Your task to perform on an android device: Do I have any events this weekend? Image 0: 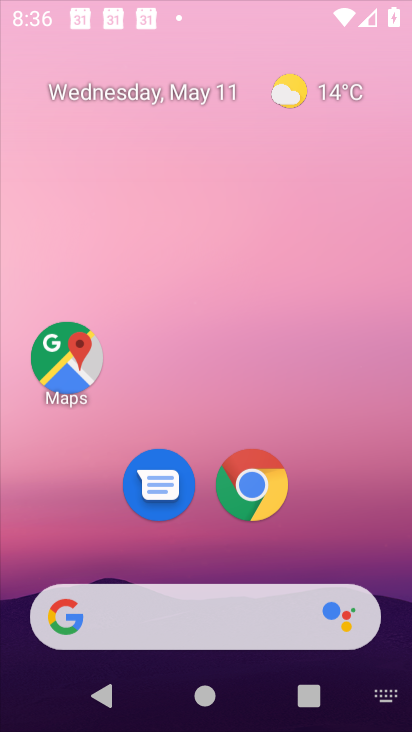
Step 0: click (223, 160)
Your task to perform on an android device: Do I have any events this weekend? Image 1: 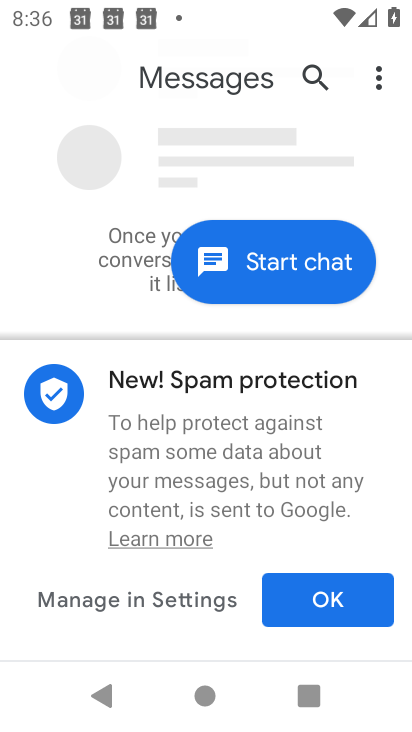
Step 1: press home button
Your task to perform on an android device: Do I have any events this weekend? Image 2: 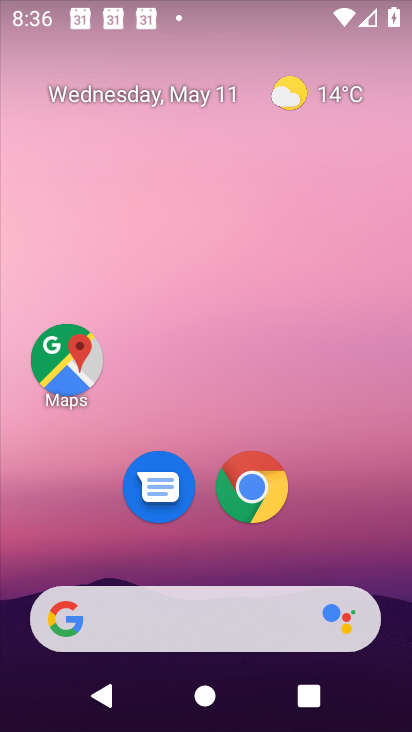
Step 2: drag from (237, 715) to (242, 132)
Your task to perform on an android device: Do I have any events this weekend? Image 3: 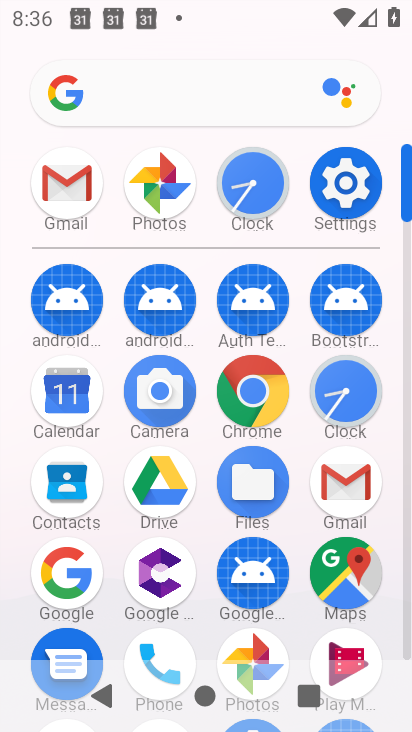
Step 3: click (64, 404)
Your task to perform on an android device: Do I have any events this weekend? Image 4: 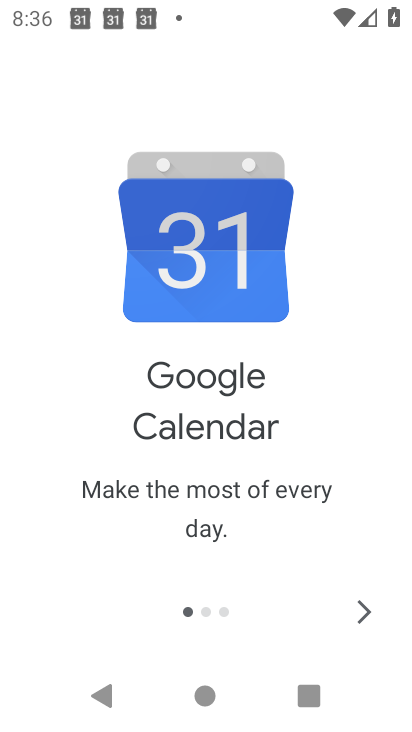
Step 4: click (370, 608)
Your task to perform on an android device: Do I have any events this weekend? Image 5: 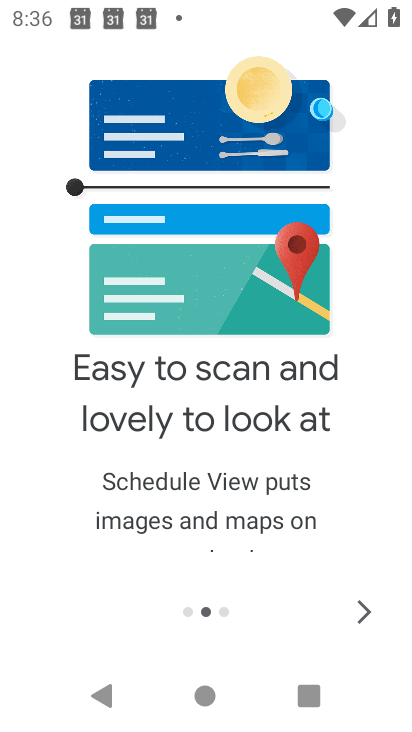
Step 5: click (370, 608)
Your task to perform on an android device: Do I have any events this weekend? Image 6: 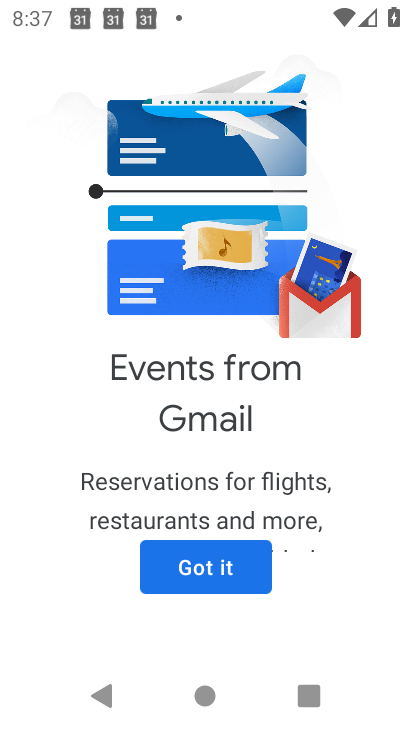
Step 6: click (187, 557)
Your task to perform on an android device: Do I have any events this weekend? Image 7: 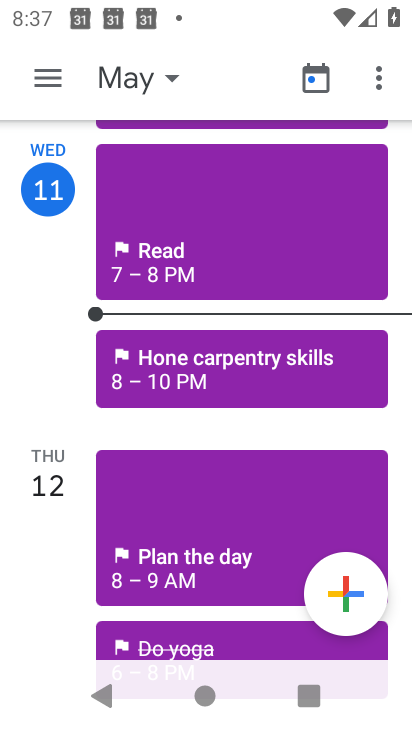
Step 7: click (34, 84)
Your task to perform on an android device: Do I have any events this weekend? Image 8: 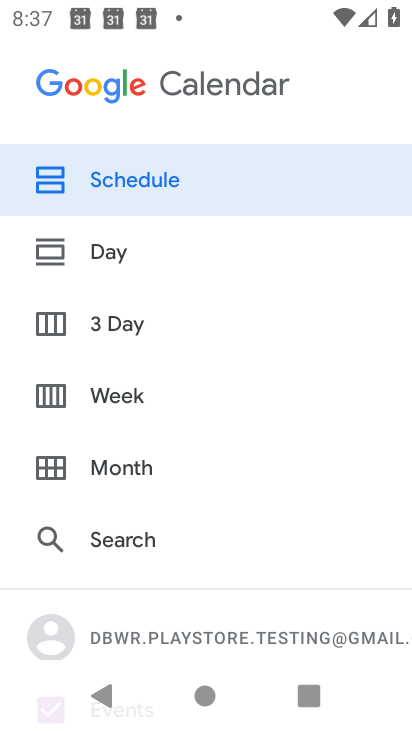
Step 8: drag from (189, 602) to (189, 112)
Your task to perform on an android device: Do I have any events this weekend? Image 9: 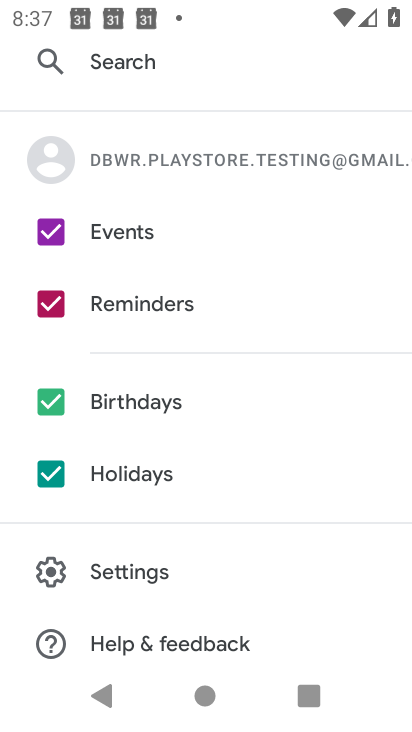
Step 9: click (52, 474)
Your task to perform on an android device: Do I have any events this weekend? Image 10: 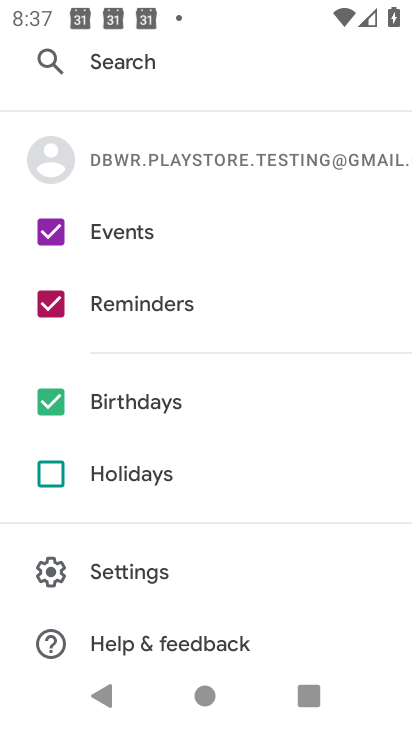
Step 10: click (51, 402)
Your task to perform on an android device: Do I have any events this weekend? Image 11: 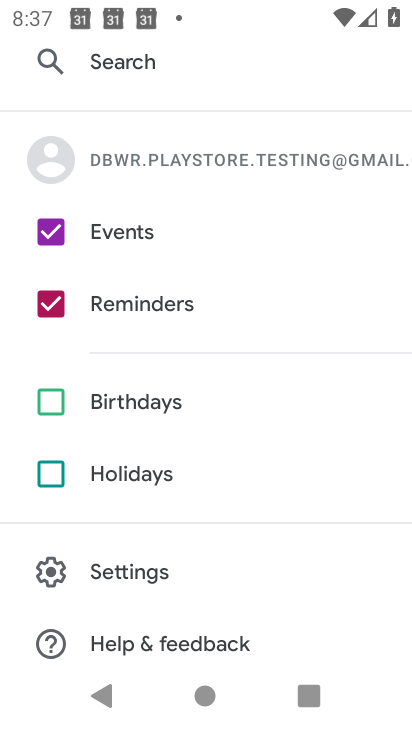
Step 11: click (44, 304)
Your task to perform on an android device: Do I have any events this weekend? Image 12: 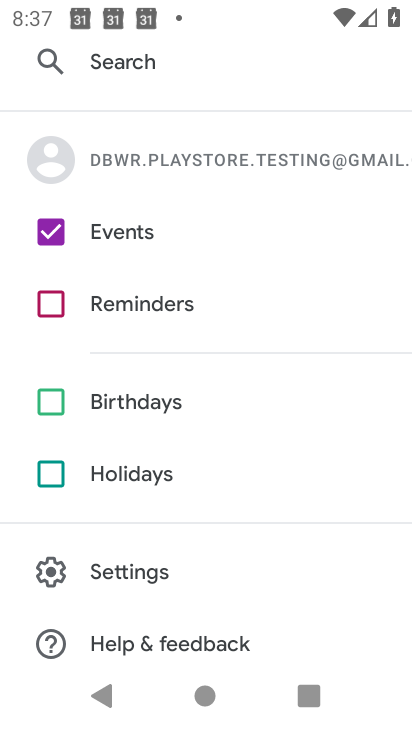
Step 12: drag from (244, 346) to (232, 574)
Your task to perform on an android device: Do I have any events this weekend? Image 13: 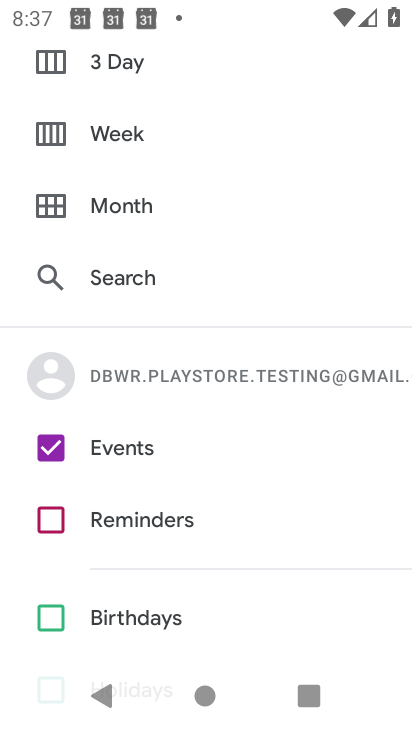
Step 13: drag from (246, 169) to (254, 513)
Your task to perform on an android device: Do I have any events this weekend? Image 14: 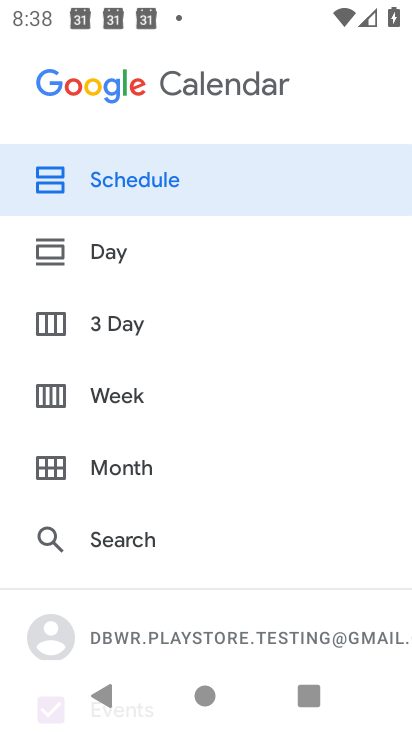
Step 14: click (119, 395)
Your task to perform on an android device: Do I have any events this weekend? Image 15: 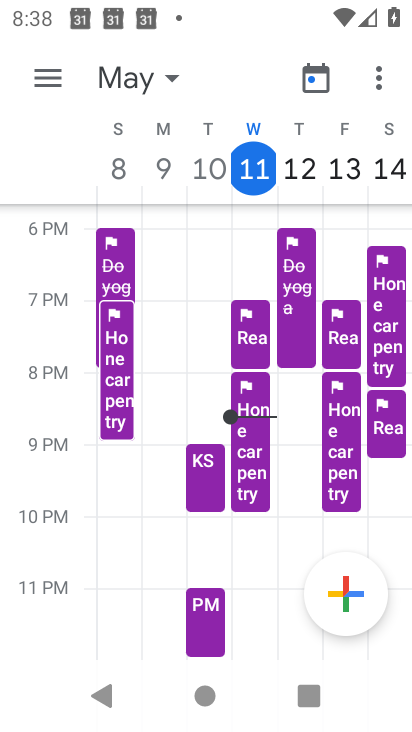
Step 15: click (389, 164)
Your task to perform on an android device: Do I have any events this weekend? Image 16: 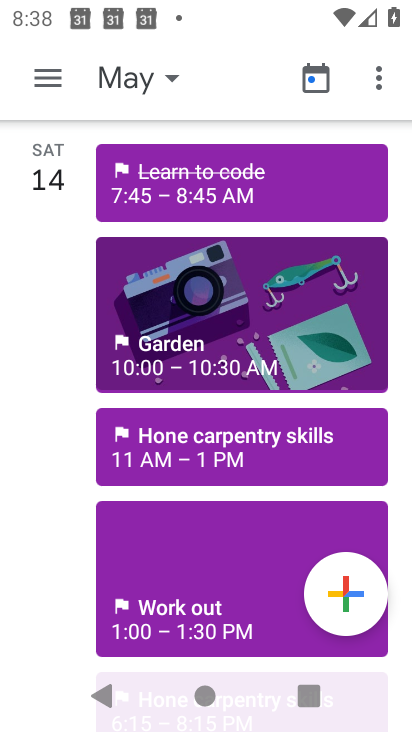
Step 16: task complete